Your task to perform on an android device: open a new tab in the chrome app Image 0: 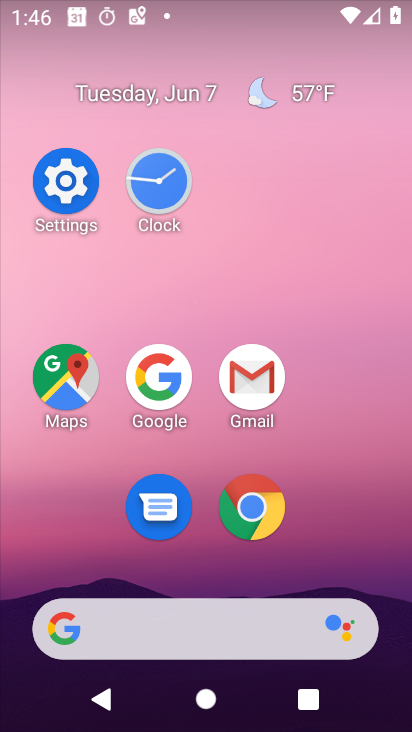
Step 0: click (240, 511)
Your task to perform on an android device: open a new tab in the chrome app Image 1: 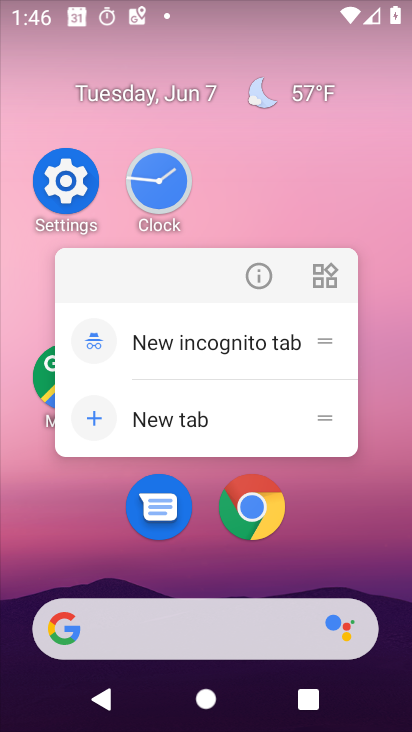
Step 1: click (266, 511)
Your task to perform on an android device: open a new tab in the chrome app Image 2: 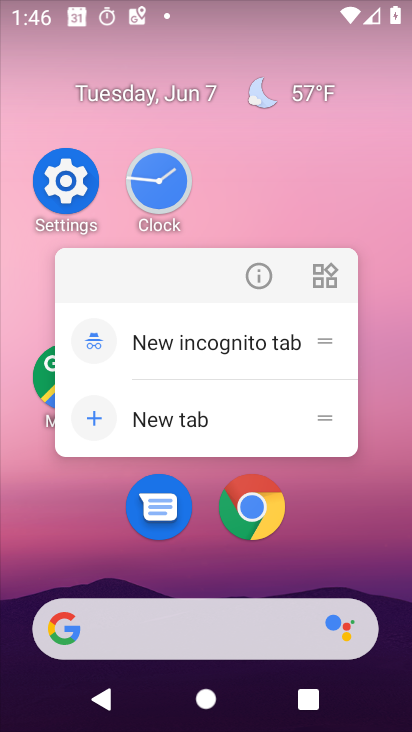
Step 2: click (262, 517)
Your task to perform on an android device: open a new tab in the chrome app Image 3: 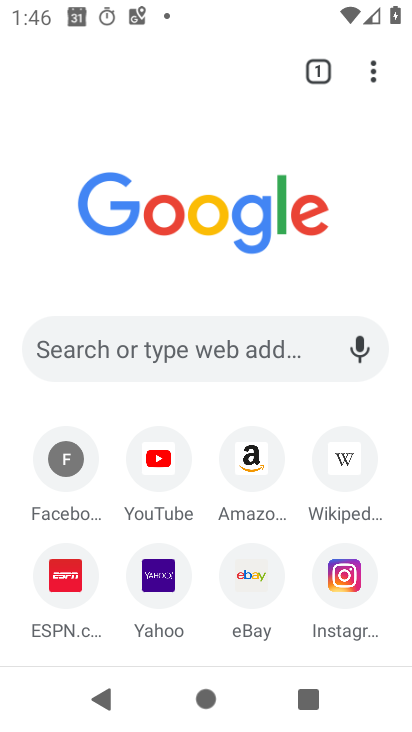
Step 3: click (327, 80)
Your task to perform on an android device: open a new tab in the chrome app Image 4: 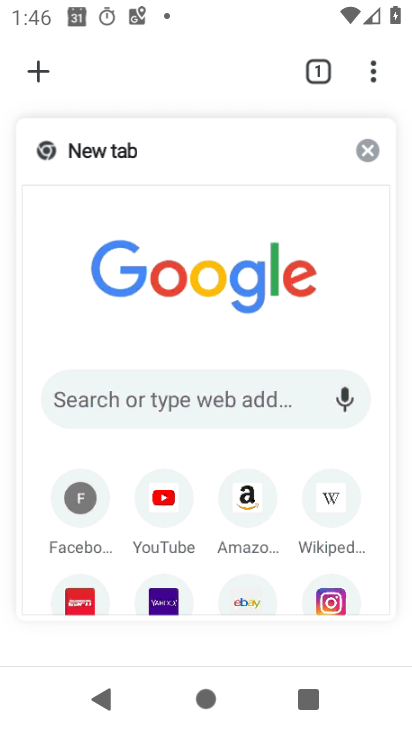
Step 4: click (34, 93)
Your task to perform on an android device: open a new tab in the chrome app Image 5: 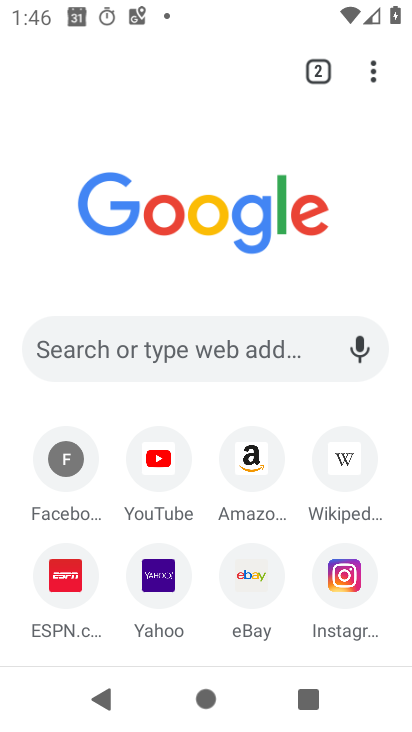
Step 5: task complete